Your task to perform on an android device: turn off sleep mode Image 0: 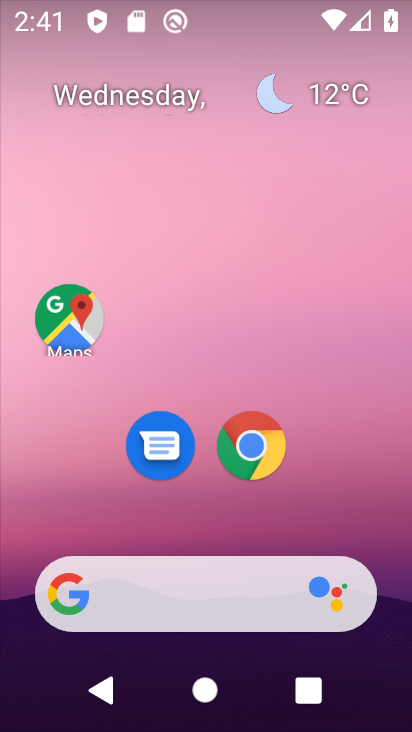
Step 0: drag from (392, 596) to (331, 155)
Your task to perform on an android device: turn off sleep mode Image 1: 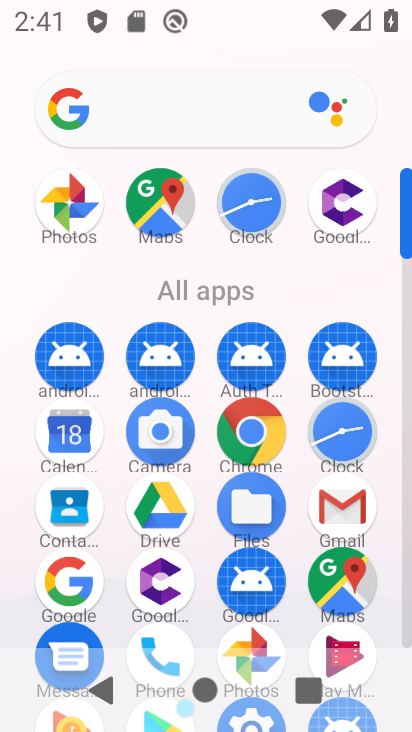
Step 1: drag from (214, 296) to (203, 168)
Your task to perform on an android device: turn off sleep mode Image 2: 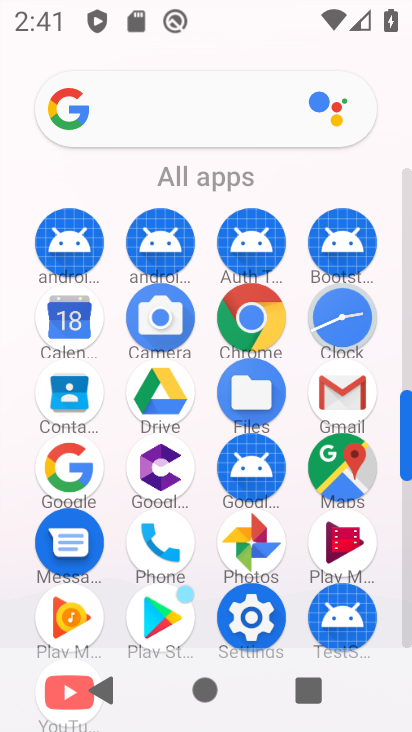
Step 2: drag from (301, 16) to (277, 617)
Your task to perform on an android device: turn off sleep mode Image 3: 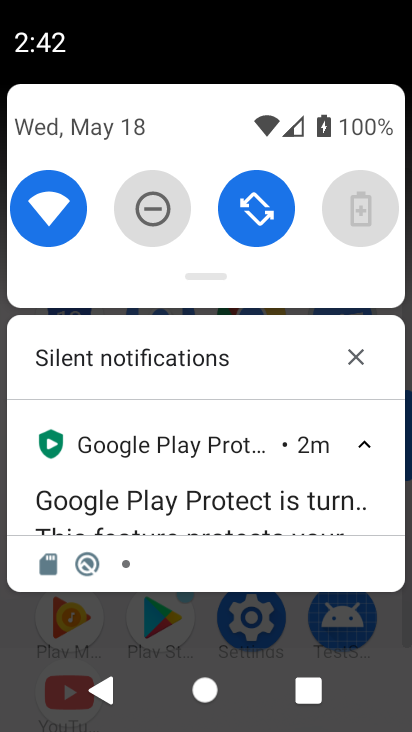
Step 3: drag from (200, 271) to (241, 689)
Your task to perform on an android device: turn off sleep mode Image 4: 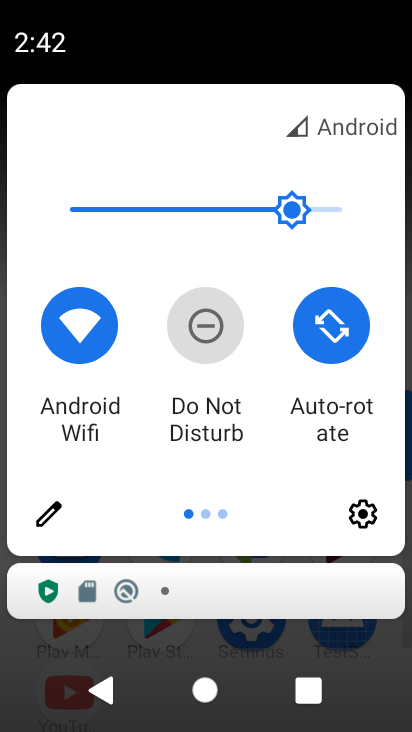
Step 4: click (60, 522)
Your task to perform on an android device: turn off sleep mode Image 5: 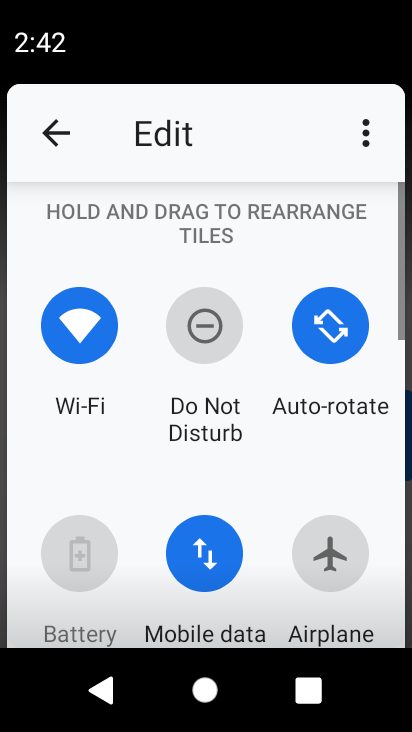
Step 5: task complete